Your task to perform on an android device: What is the recent news? Image 0: 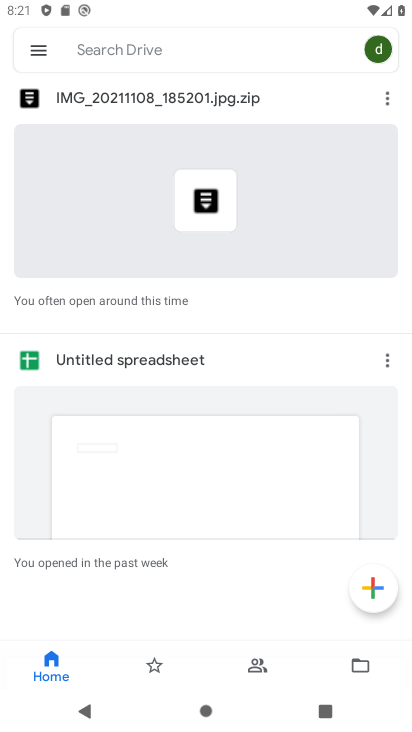
Step 0: press home button
Your task to perform on an android device: What is the recent news? Image 1: 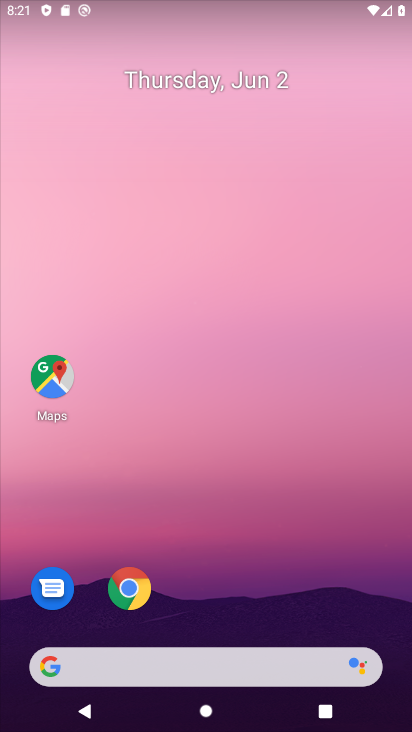
Step 1: task complete